Your task to perform on an android device: Open maps Image 0: 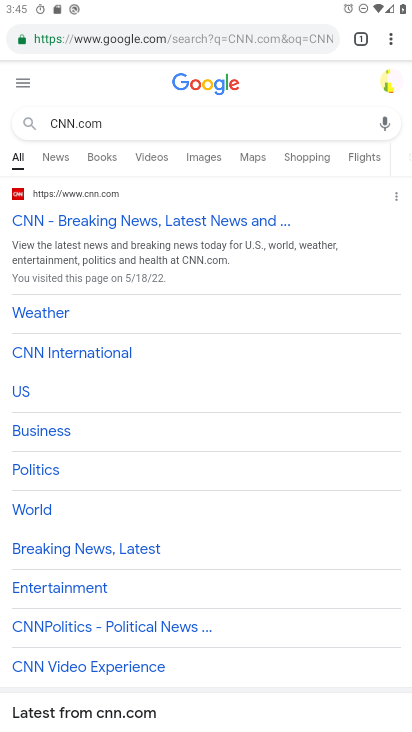
Step 0: press home button
Your task to perform on an android device: Open maps Image 1: 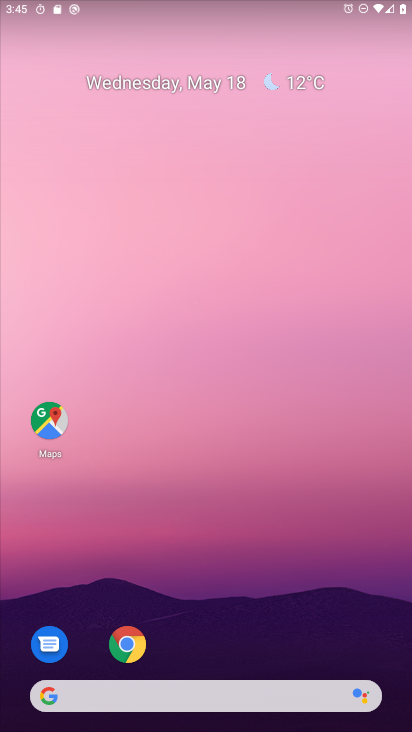
Step 1: click (49, 421)
Your task to perform on an android device: Open maps Image 2: 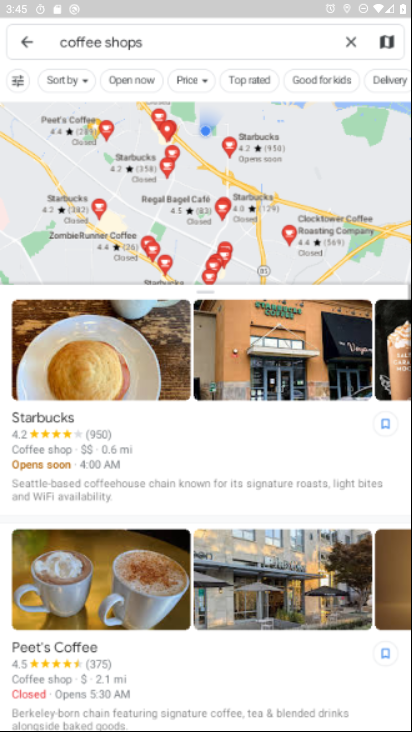
Step 2: task complete